Your task to perform on an android device: Turn off the flashlight Image 0: 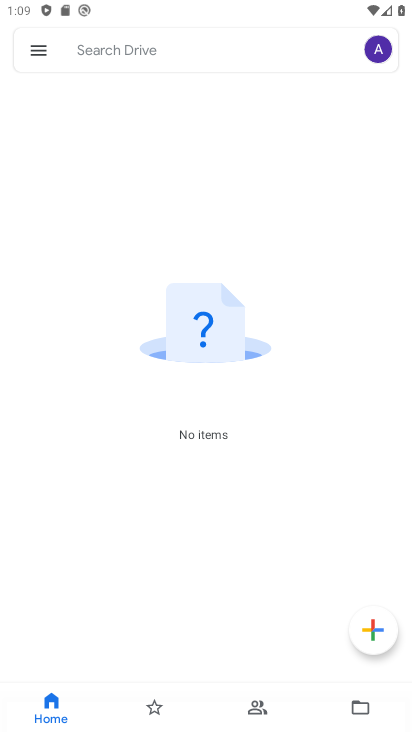
Step 0: press home button
Your task to perform on an android device: Turn off the flashlight Image 1: 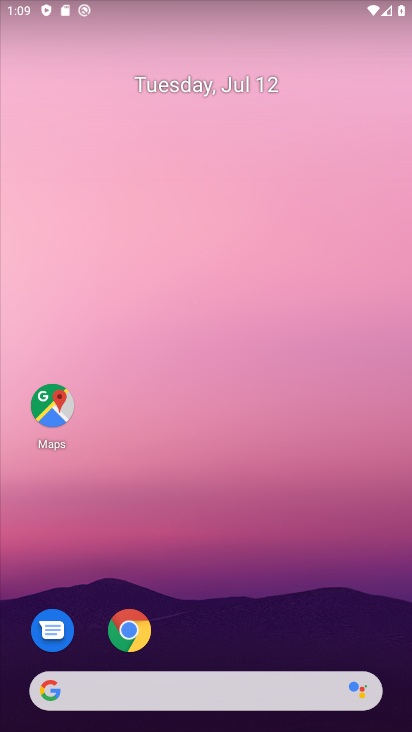
Step 1: drag from (209, 638) to (141, 160)
Your task to perform on an android device: Turn off the flashlight Image 2: 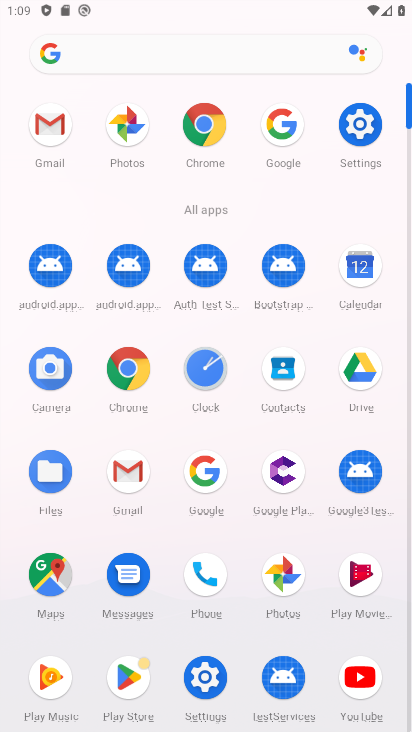
Step 2: click (337, 139)
Your task to perform on an android device: Turn off the flashlight Image 3: 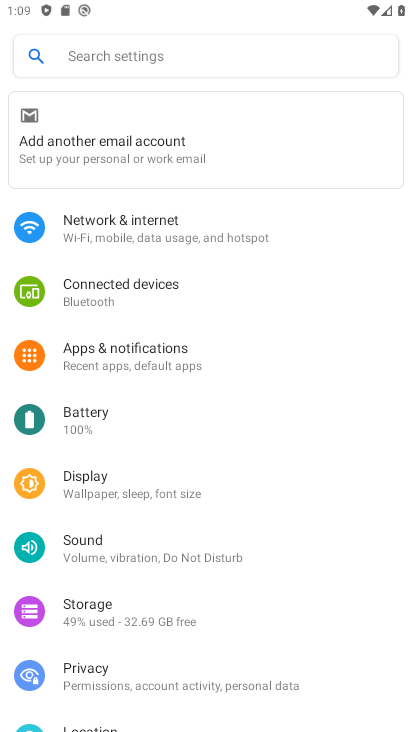
Step 3: task complete